Your task to perform on an android device: Show me productivity apps on the Play Store Image 0: 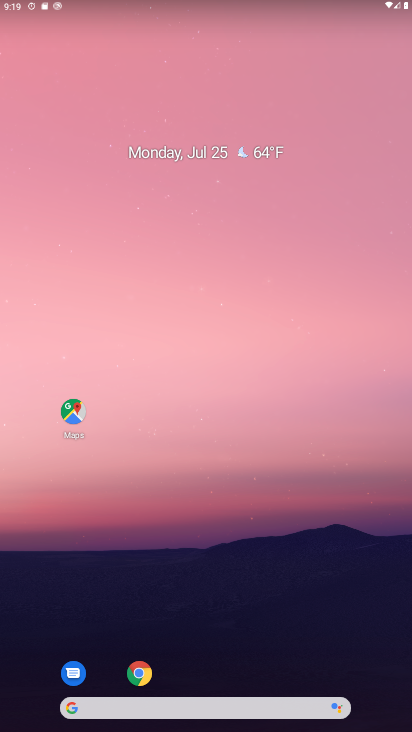
Step 0: press home button
Your task to perform on an android device: Show me productivity apps on the Play Store Image 1: 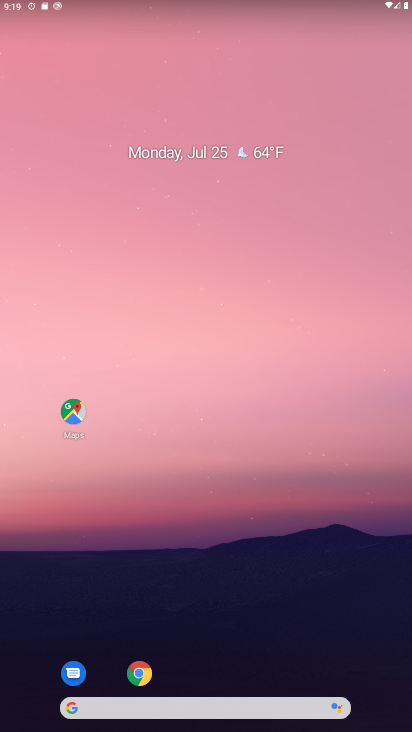
Step 1: drag from (218, 675) to (219, 0)
Your task to perform on an android device: Show me productivity apps on the Play Store Image 2: 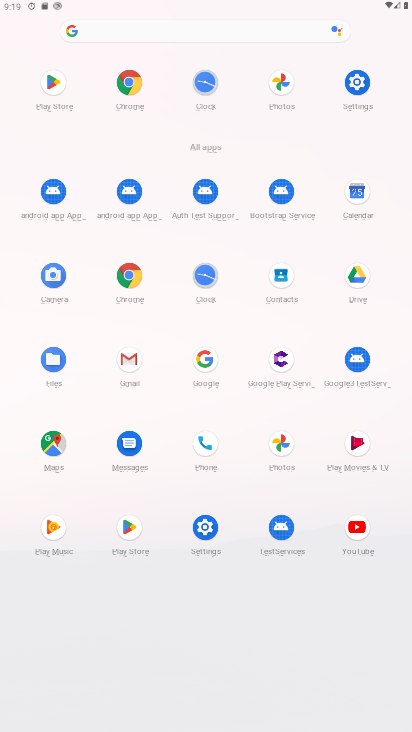
Step 2: click (126, 524)
Your task to perform on an android device: Show me productivity apps on the Play Store Image 3: 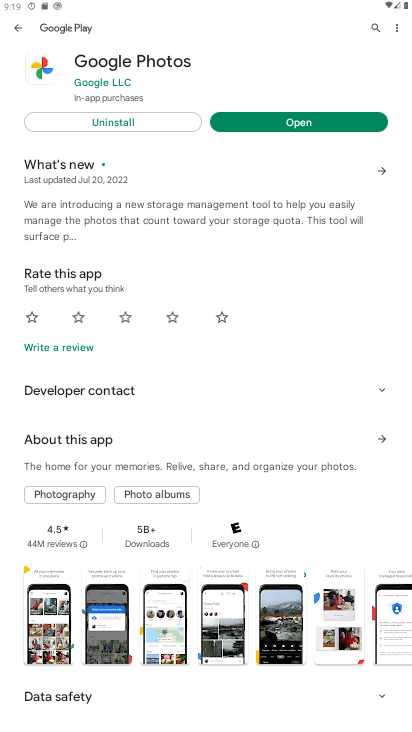
Step 3: click (18, 34)
Your task to perform on an android device: Show me productivity apps on the Play Store Image 4: 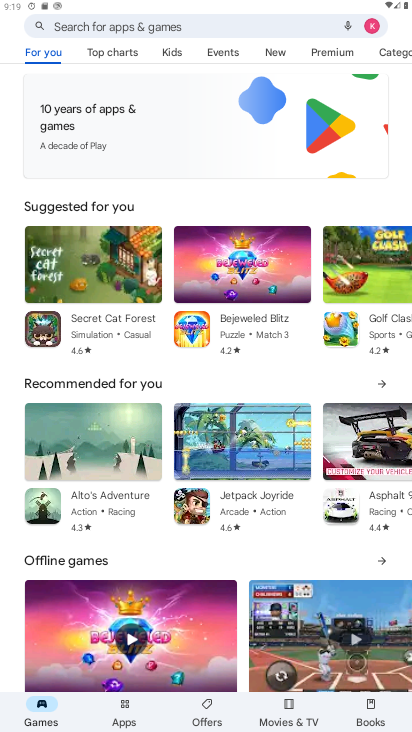
Step 4: click (120, 698)
Your task to perform on an android device: Show me productivity apps on the Play Store Image 5: 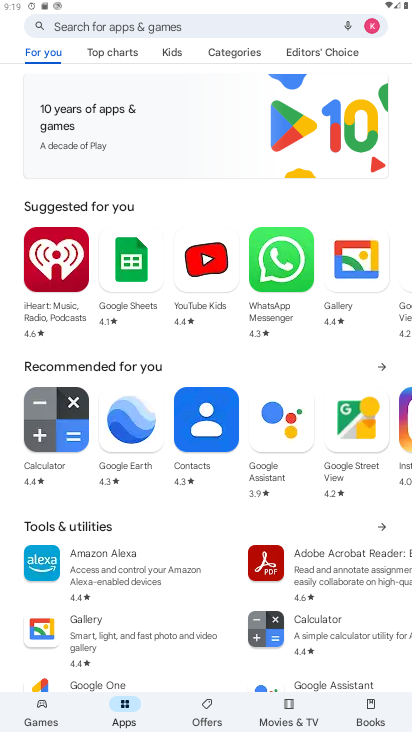
Step 5: click (231, 48)
Your task to perform on an android device: Show me productivity apps on the Play Store Image 6: 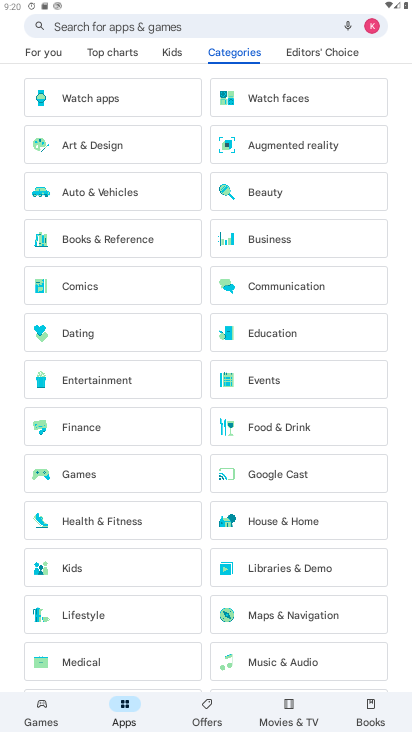
Step 6: drag from (172, 643) to (181, 148)
Your task to perform on an android device: Show me productivity apps on the Play Store Image 7: 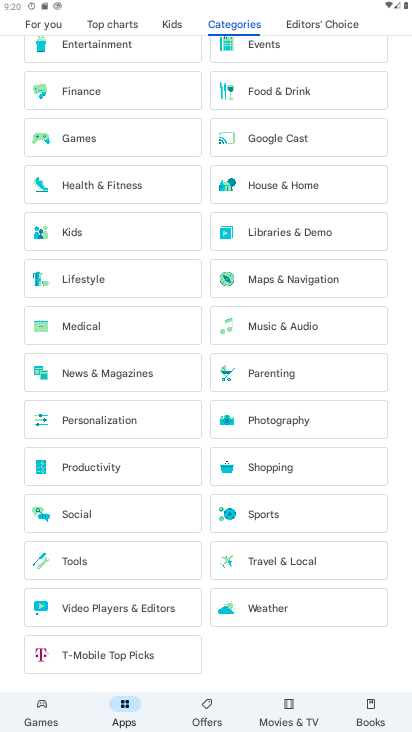
Step 7: click (127, 460)
Your task to perform on an android device: Show me productivity apps on the Play Store Image 8: 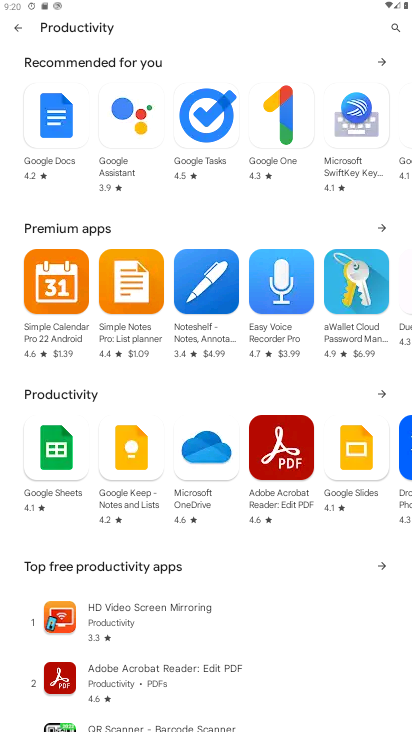
Step 8: click (376, 393)
Your task to perform on an android device: Show me productivity apps on the Play Store Image 9: 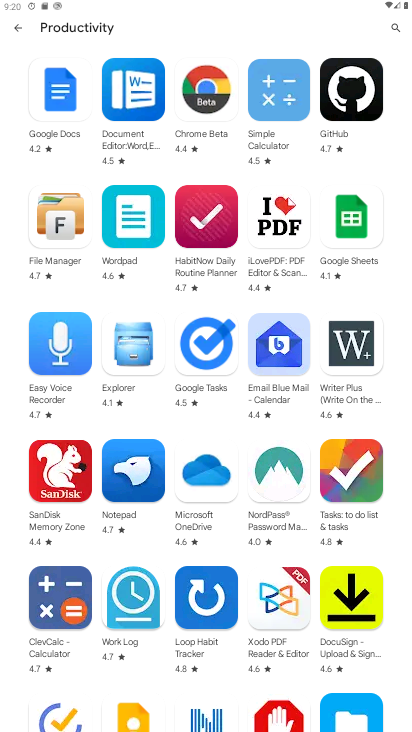
Step 9: task complete